Your task to perform on an android device: Go to location settings Image 0: 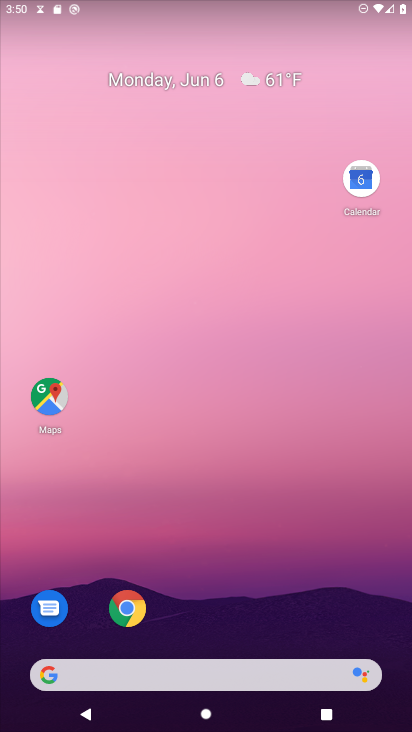
Step 0: drag from (238, 620) to (243, 0)
Your task to perform on an android device: Go to location settings Image 1: 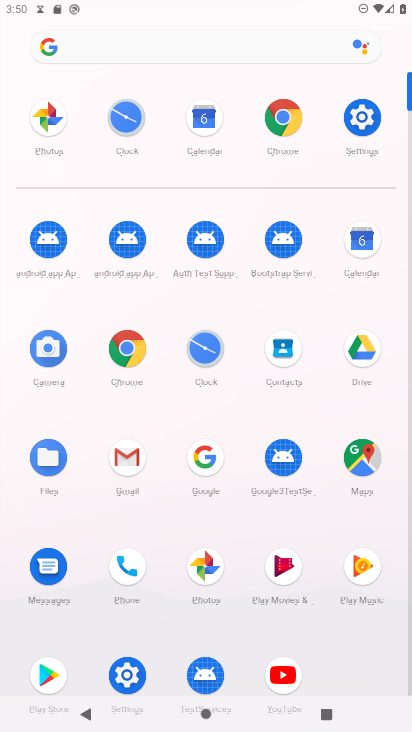
Step 1: click (137, 676)
Your task to perform on an android device: Go to location settings Image 2: 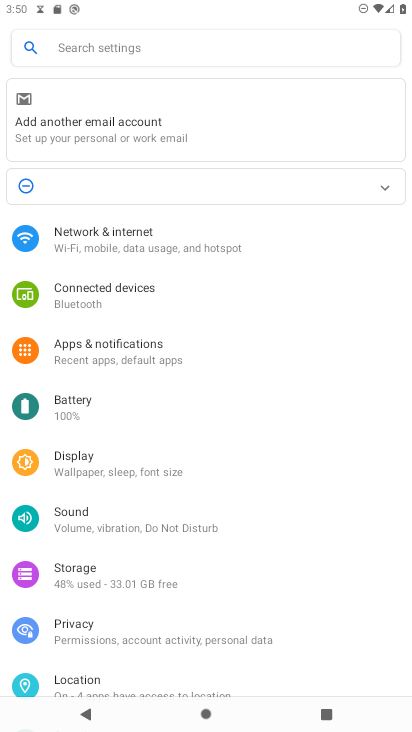
Step 2: click (113, 689)
Your task to perform on an android device: Go to location settings Image 3: 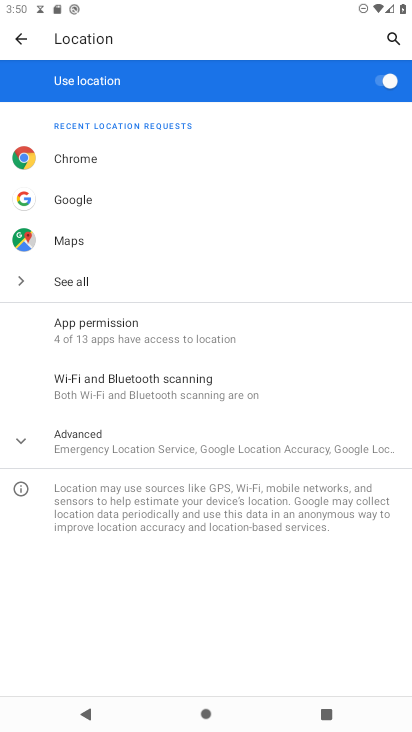
Step 3: task complete